Your task to perform on an android device: visit the assistant section in the google photos Image 0: 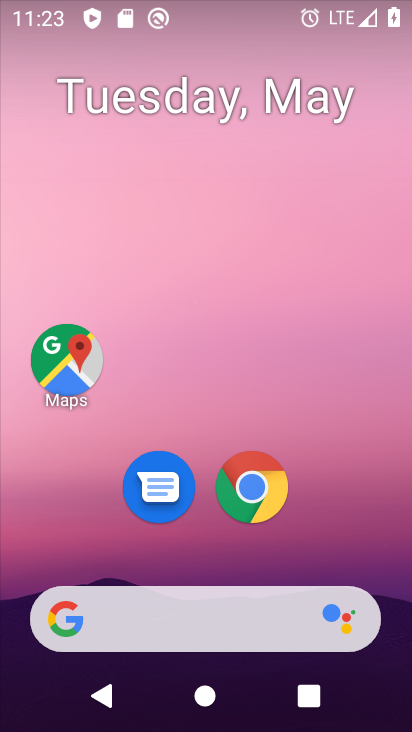
Step 0: drag from (336, 115) to (275, 176)
Your task to perform on an android device: visit the assistant section in the google photos Image 1: 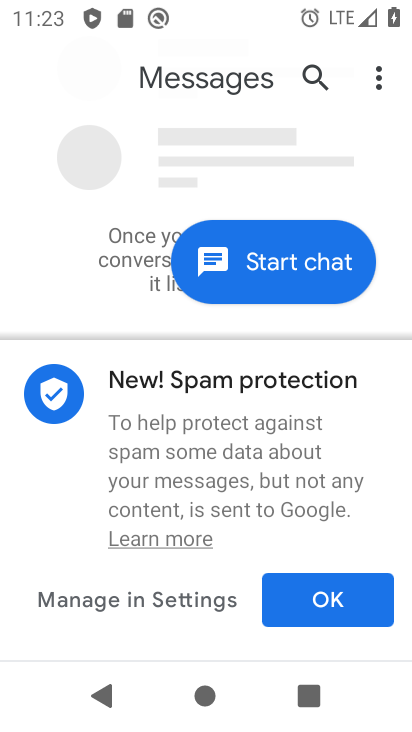
Step 1: press home button
Your task to perform on an android device: visit the assistant section in the google photos Image 2: 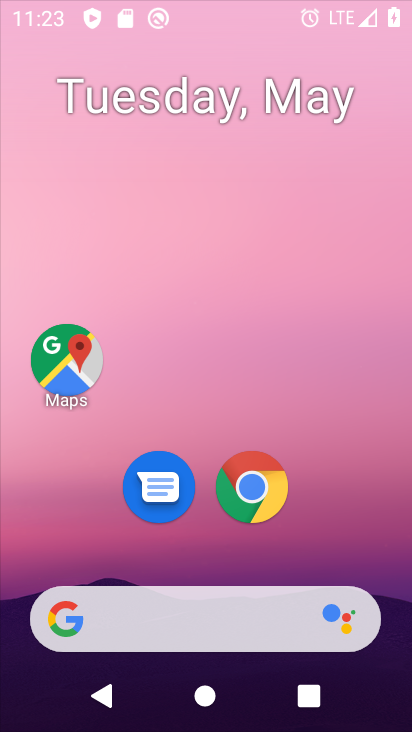
Step 2: drag from (201, 593) to (225, 131)
Your task to perform on an android device: visit the assistant section in the google photos Image 3: 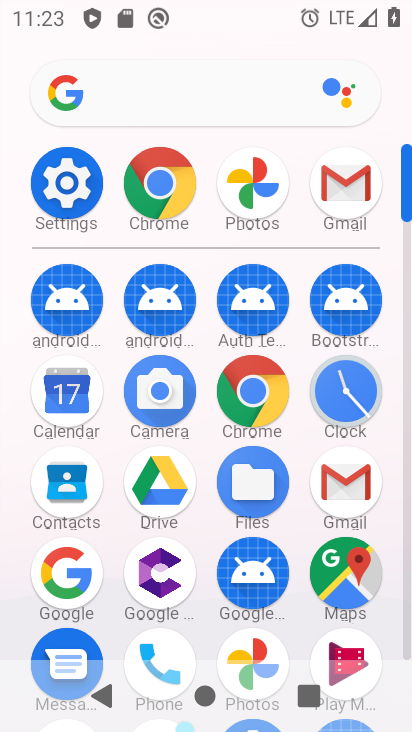
Step 3: click (251, 642)
Your task to perform on an android device: visit the assistant section in the google photos Image 4: 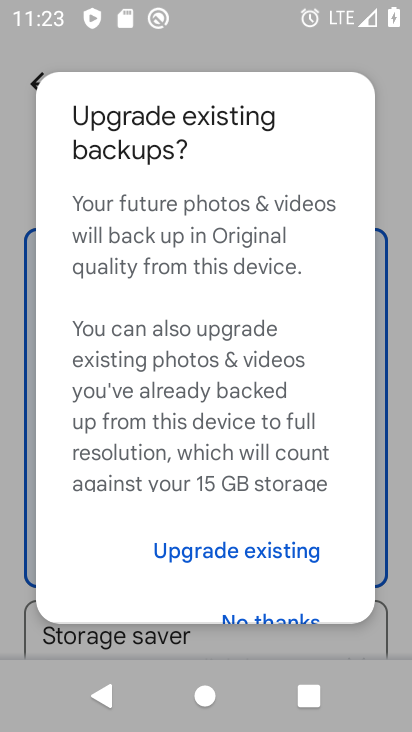
Step 4: click (262, 609)
Your task to perform on an android device: visit the assistant section in the google photos Image 5: 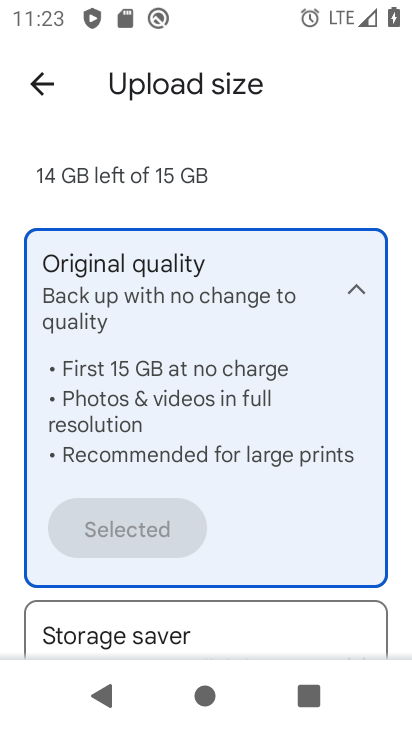
Step 5: click (24, 77)
Your task to perform on an android device: visit the assistant section in the google photos Image 6: 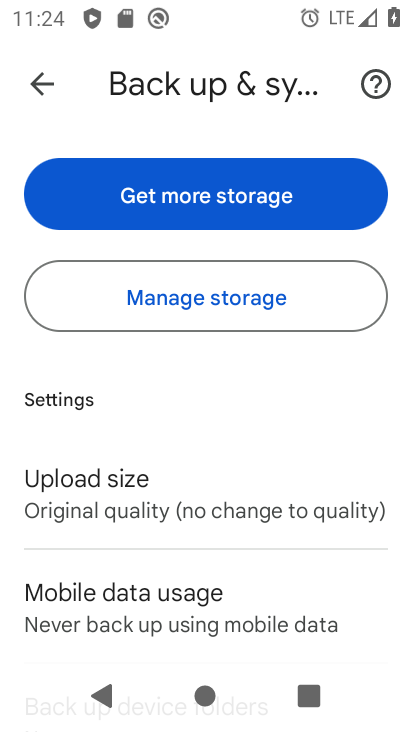
Step 6: click (43, 100)
Your task to perform on an android device: visit the assistant section in the google photos Image 7: 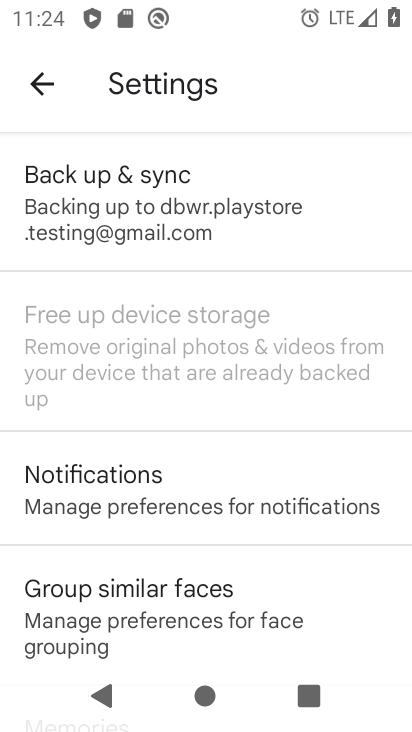
Step 7: drag from (192, 626) to (186, 276)
Your task to perform on an android device: visit the assistant section in the google photos Image 8: 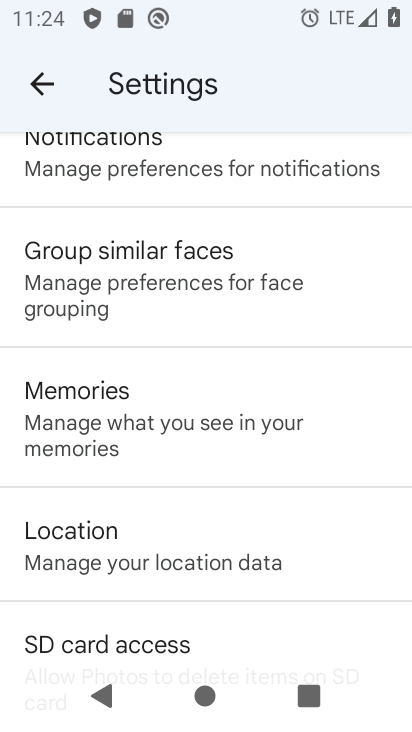
Step 8: click (43, 77)
Your task to perform on an android device: visit the assistant section in the google photos Image 9: 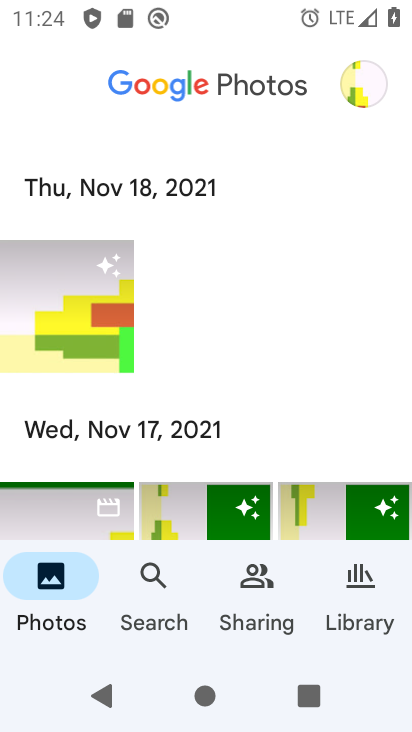
Step 9: task complete